Your task to perform on an android device: remove spam from my inbox in the gmail app Image 0: 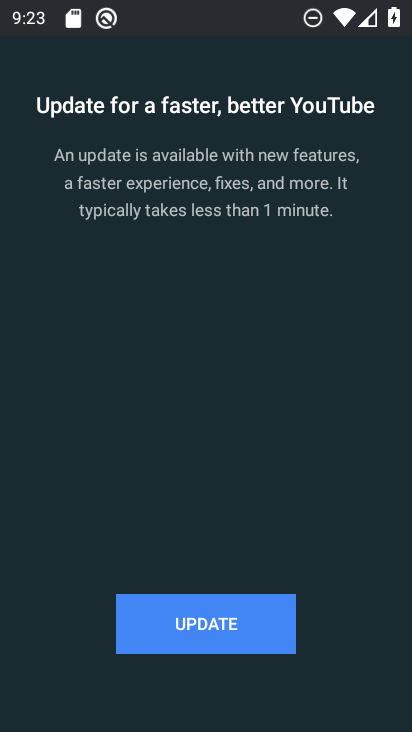
Step 0: press home button
Your task to perform on an android device: remove spam from my inbox in the gmail app Image 1: 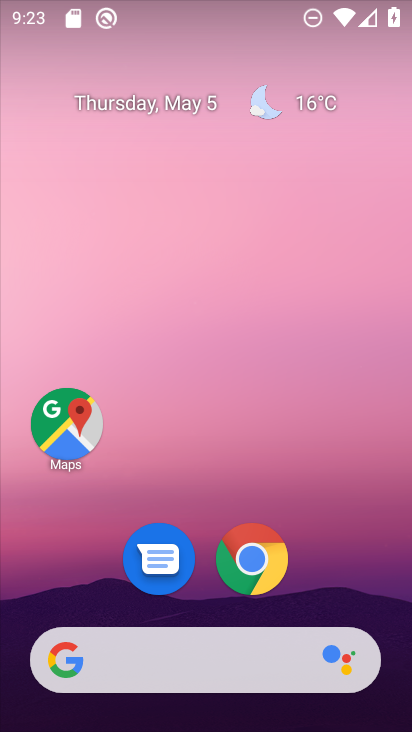
Step 1: drag from (382, 579) to (403, 3)
Your task to perform on an android device: remove spam from my inbox in the gmail app Image 2: 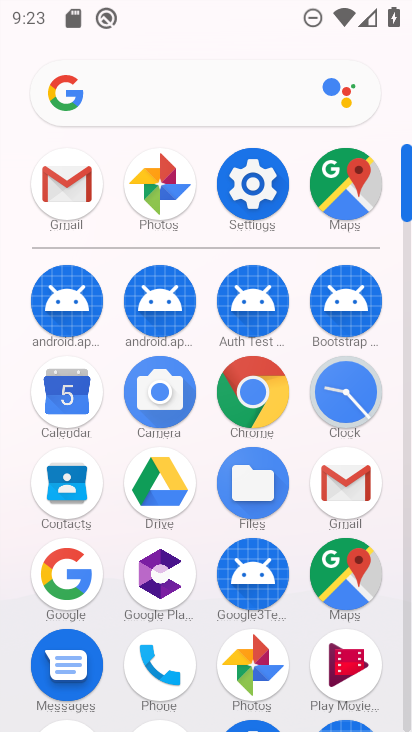
Step 2: click (60, 198)
Your task to perform on an android device: remove spam from my inbox in the gmail app Image 3: 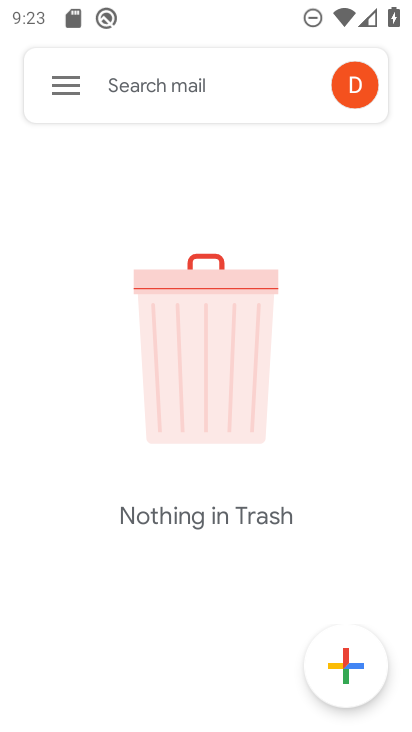
Step 3: click (59, 92)
Your task to perform on an android device: remove spam from my inbox in the gmail app Image 4: 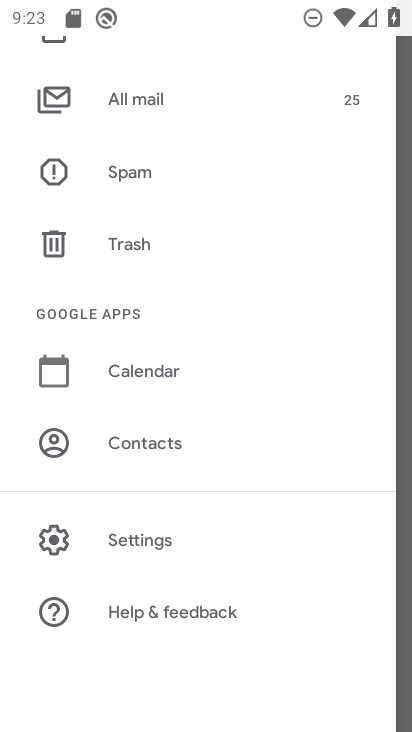
Step 4: click (133, 181)
Your task to perform on an android device: remove spam from my inbox in the gmail app Image 5: 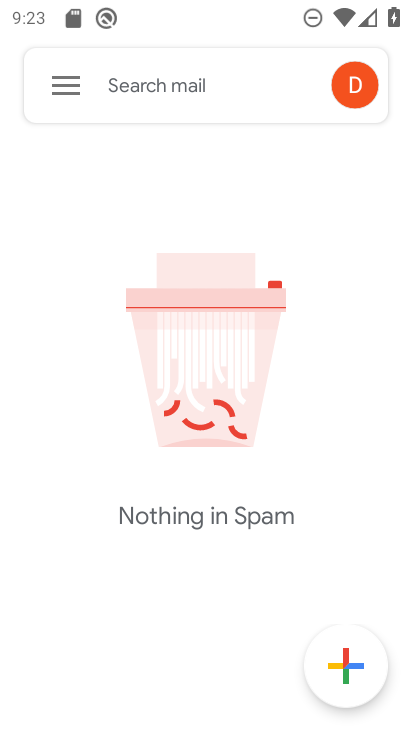
Step 5: task complete